Your task to perform on an android device: change text size in settings app Image 0: 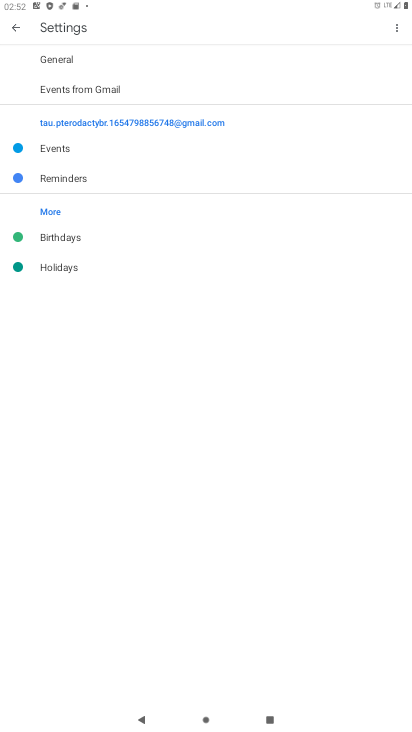
Step 0: press home button
Your task to perform on an android device: change text size in settings app Image 1: 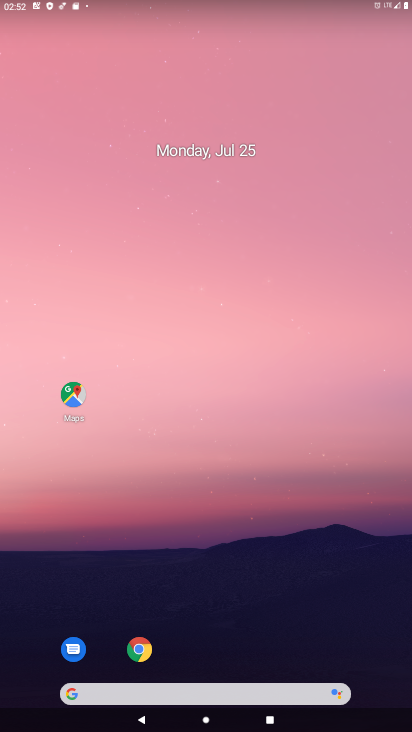
Step 1: drag from (387, 659) to (336, 182)
Your task to perform on an android device: change text size in settings app Image 2: 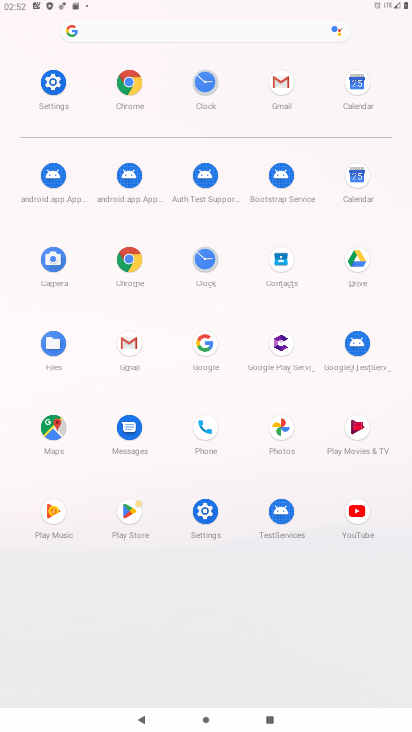
Step 2: click (205, 511)
Your task to perform on an android device: change text size in settings app Image 3: 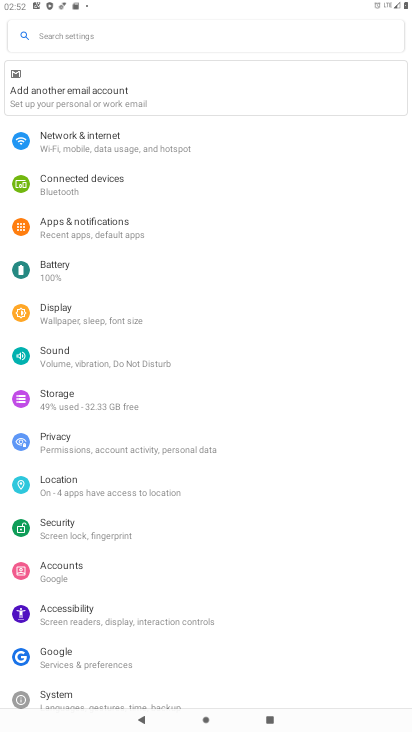
Step 3: click (78, 315)
Your task to perform on an android device: change text size in settings app Image 4: 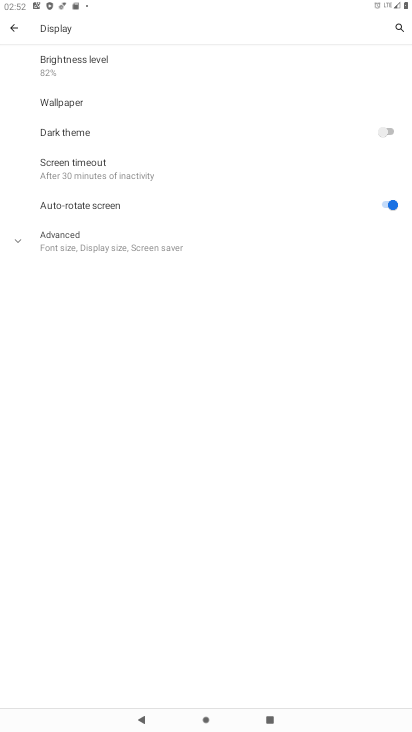
Step 4: click (24, 233)
Your task to perform on an android device: change text size in settings app Image 5: 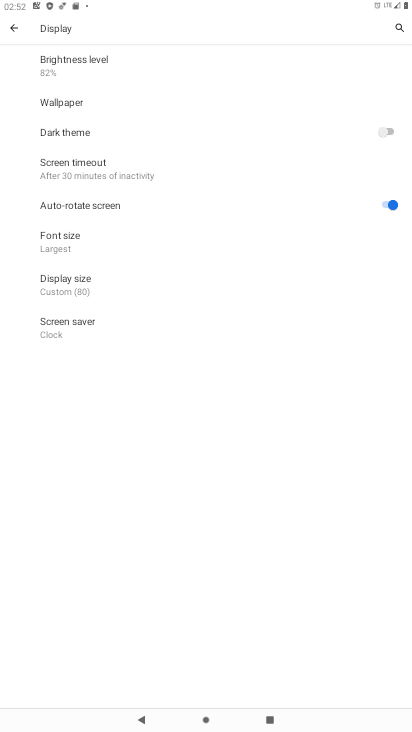
Step 5: click (61, 239)
Your task to perform on an android device: change text size in settings app Image 6: 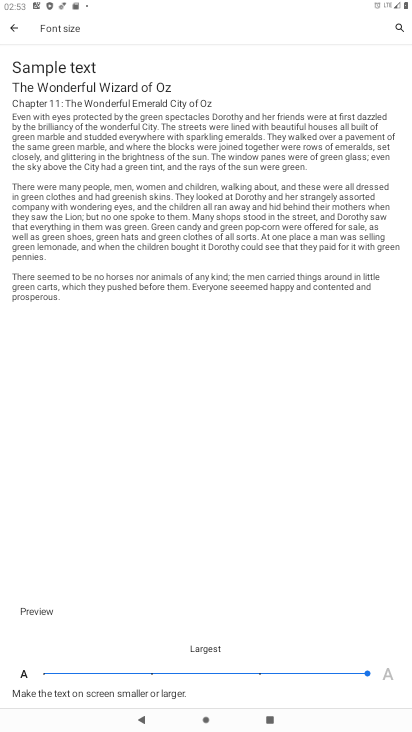
Step 6: click (263, 672)
Your task to perform on an android device: change text size in settings app Image 7: 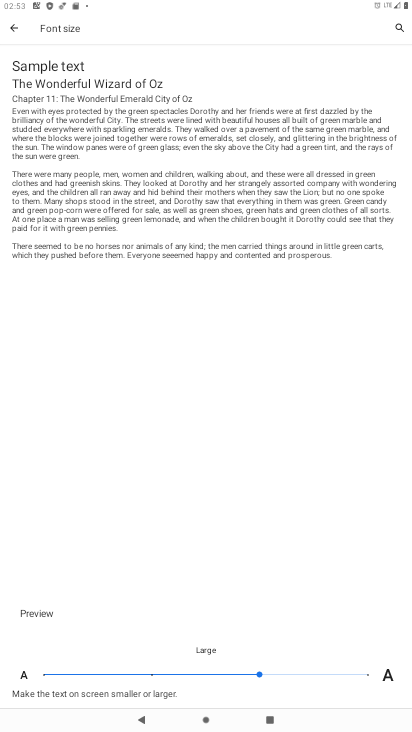
Step 7: task complete